Your task to perform on an android device: clear all cookies in the chrome app Image 0: 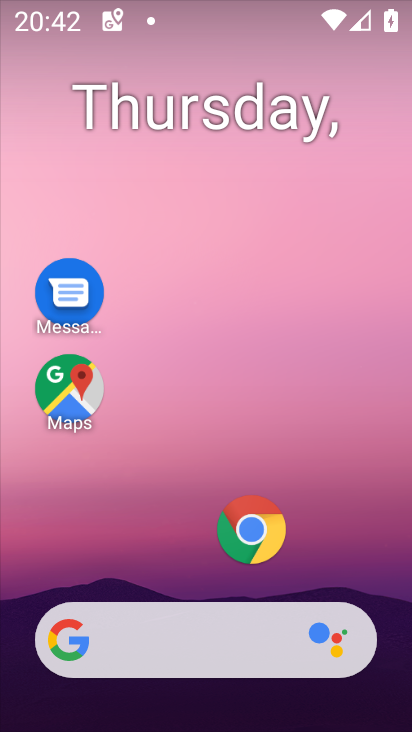
Step 0: click (252, 541)
Your task to perform on an android device: clear all cookies in the chrome app Image 1: 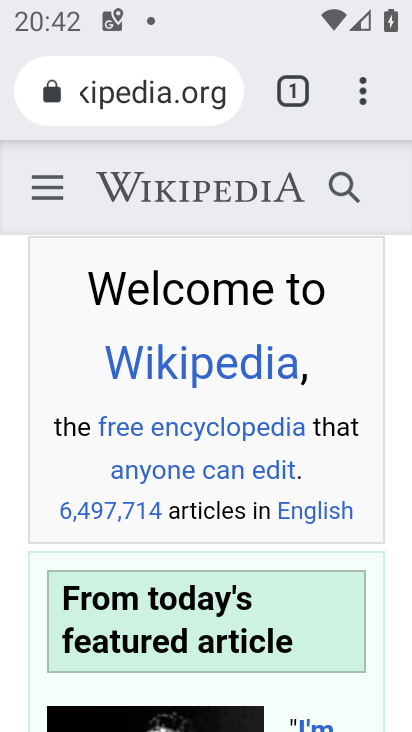
Step 1: click (358, 81)
Your task to perform on an android device: clear all cookies in the chrome app Image 2: 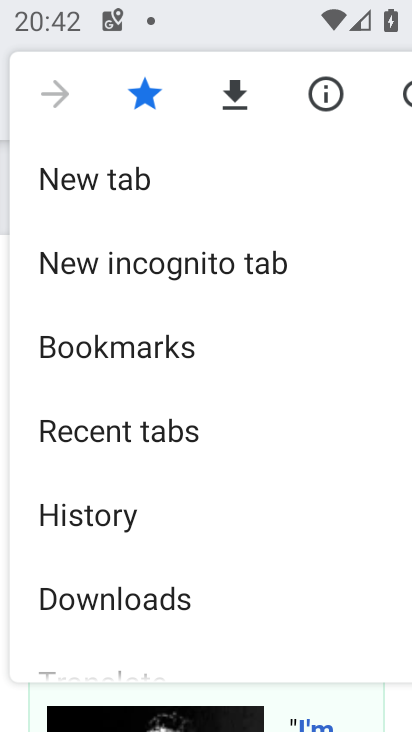
Step 2: click (137, 531)
Your task to perform on an android device: clear all cookies in the chrome app Image 3: 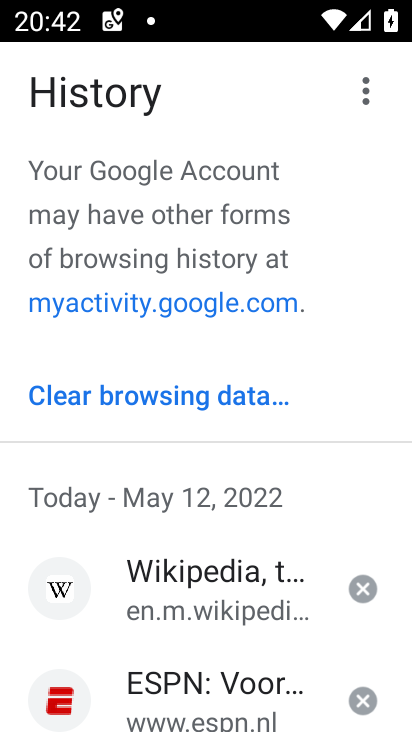
Step 3: click (168, 397)
Your task to perform on an android device: clear all cookies in the chrome app Image 4: 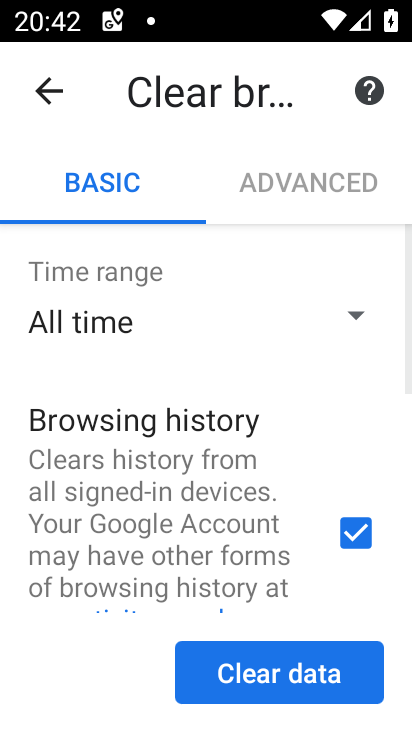
Step 4: click (355, 512)
Your task to perform on an android device: clear all cookies in the chrome app Image 5: 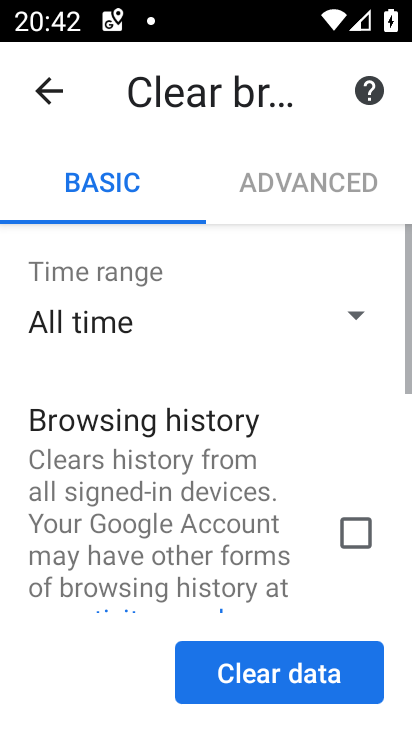
Step 5: drag from (268, 497) to (331, 163)
Your task to perform on an android device: clear all cookies in the chrome app Image 6: 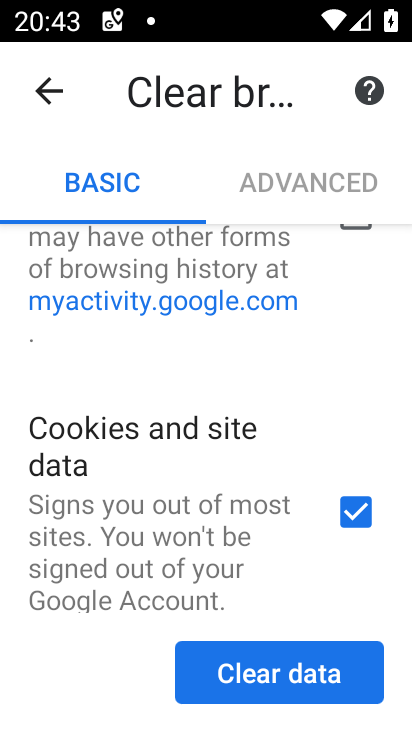
Step 6: drag from (268, 555) to (352, 233)
Your task to perform on an android device: clear all cookies in the chrome app Image 7: 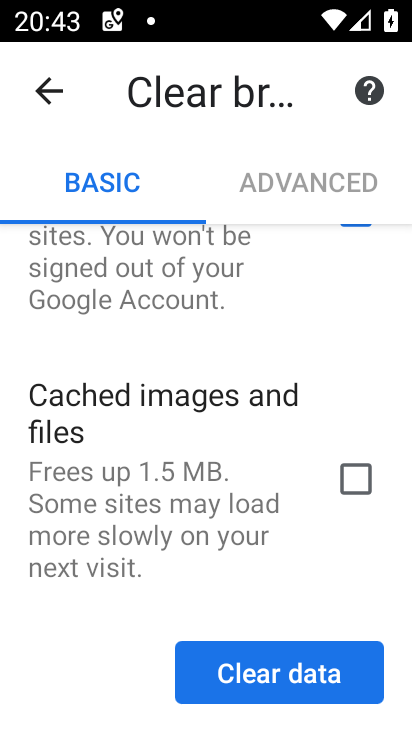
Step 7: click (335, 691)
Your task to perform on an android device: clear all cookies in the chrome app Image 8: 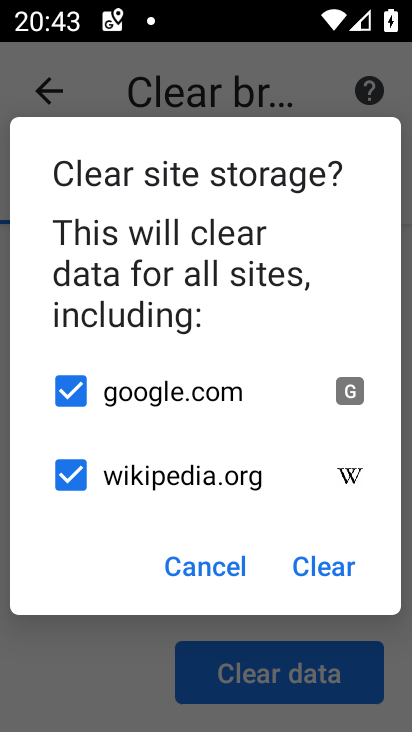
Step 8: click (317, 568)
Your task to perform on an android device: clear all cookies in the chrome app Image 9: 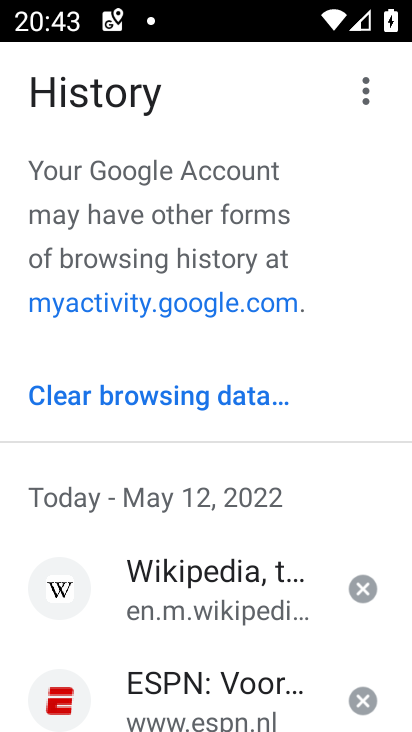
Step 9: task complete